Your task to perform on an android device: delete the emails in spam in the gmail app Image 0: 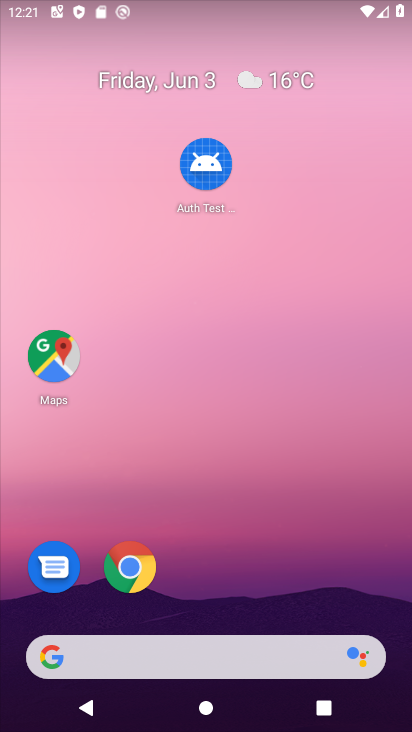
Step 0: drag from (210, 600) to (369, 8)
Your task to perform on an android device: delete the emails in spam in the gmail app Image 1: 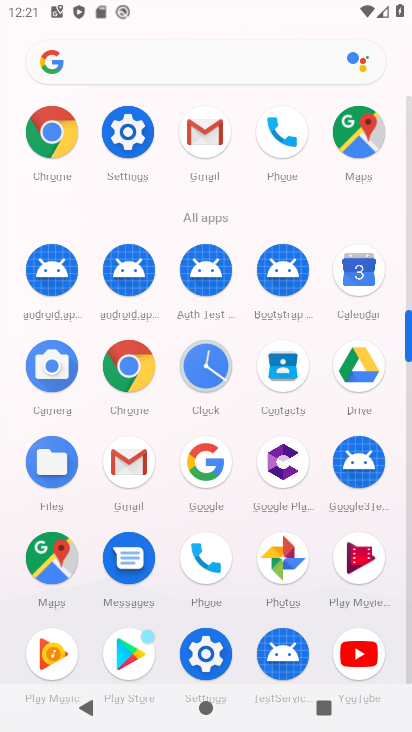
Step 1: click (198, 132)
Your task to perform on an android device: delete the emails in spam in the gmail app Image 2: 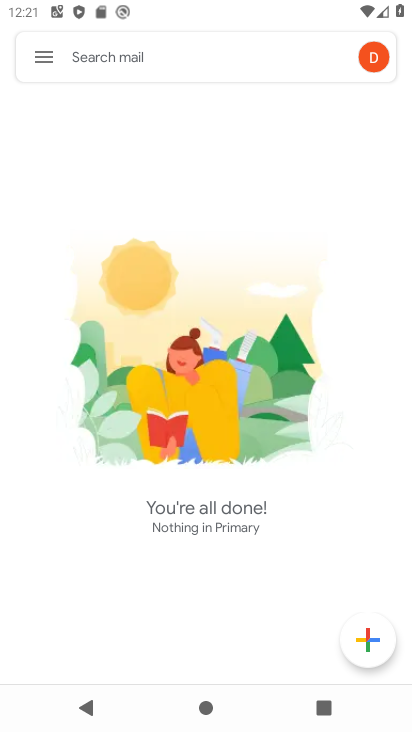
Step 2: click (198, 132)
Your task to perform on an android device: delete the emails in spam in the gmail app Image 3: 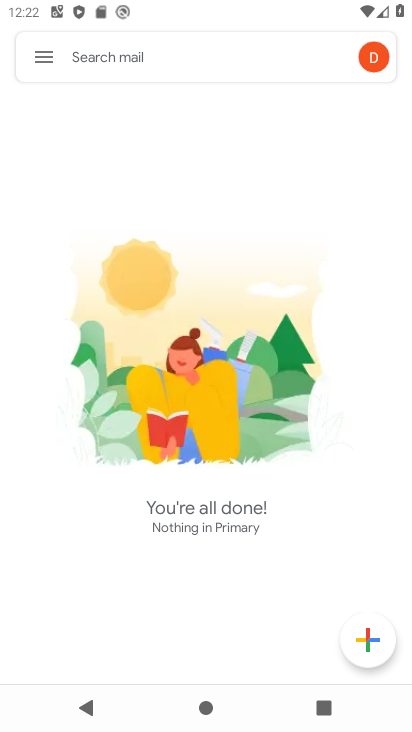
Step 3: task complete